Your task to perform on an android device: Go to network settings Image 0: 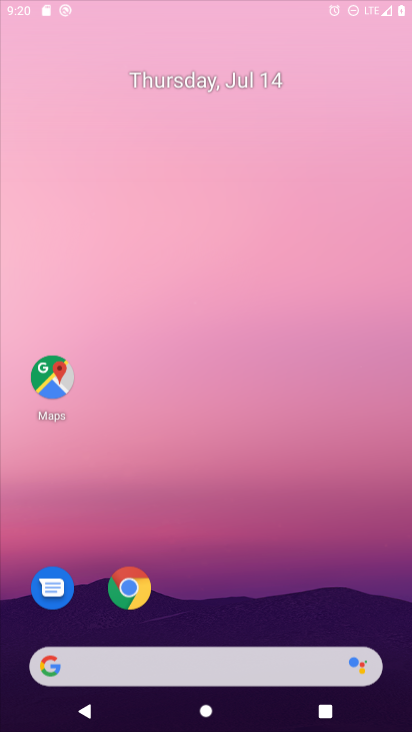
Step 0: drag from (268, 73) to (227, 138)
Your task to perform on an android device: Go to network settings Image 1: 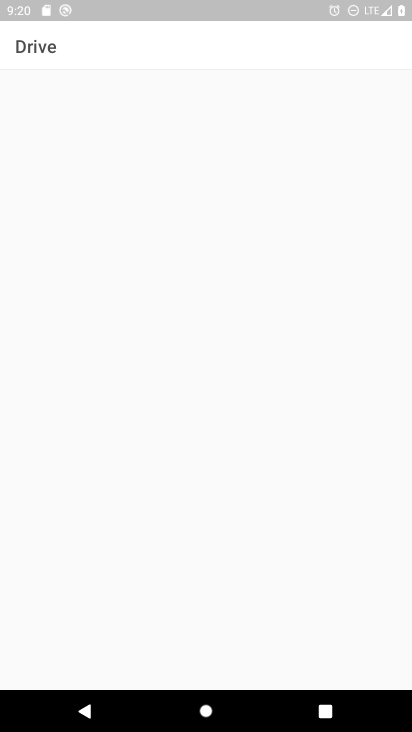
Step 1: press home button
Your task to perform on an android device: Go to network settings Image 2: 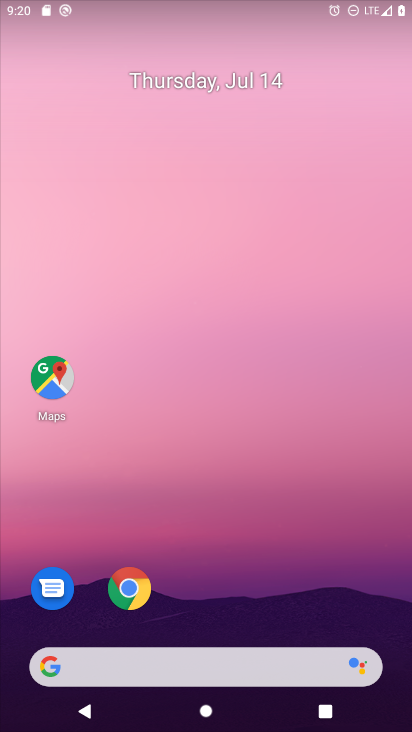
Step 2: drag from (269, 615) to (294, 48)
Your task to perform on an android device: Go to network settings Image 3: 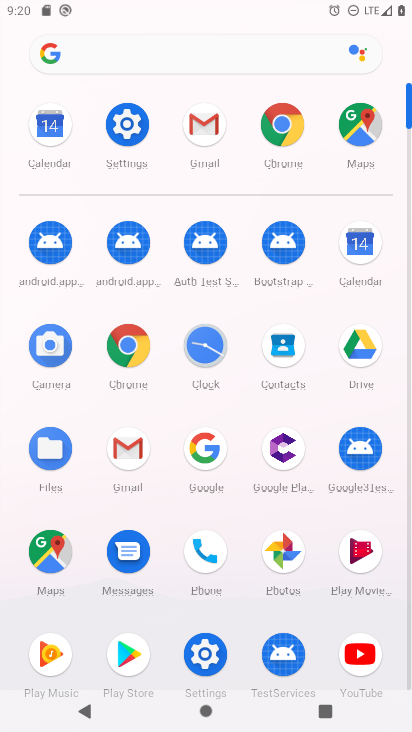
Step 3: click (108, 141)
Your task to perform on an android device: Go to network settings Image 4: 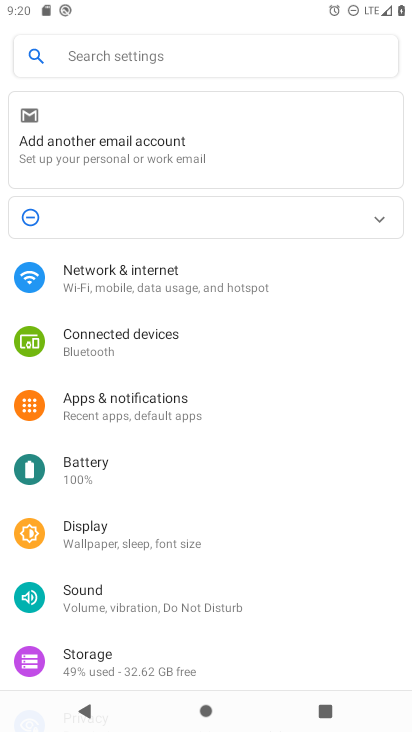
Step 4: click (87, 273)
Your task to perform on an android device: Go to network settings Image 5: 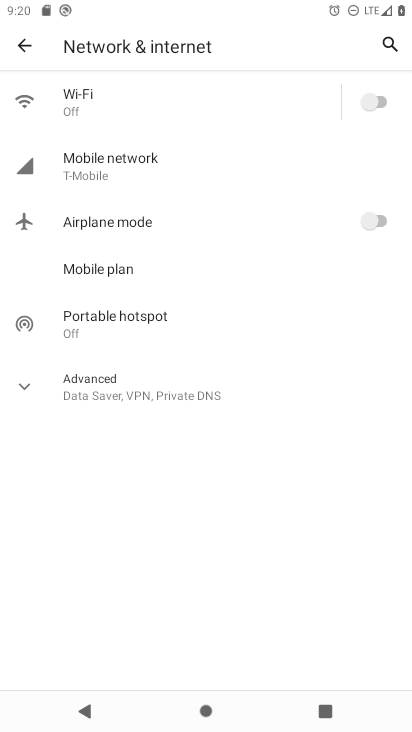
Step 5: task complete